Your task to perform on an android device: turn on wifi Image 0: 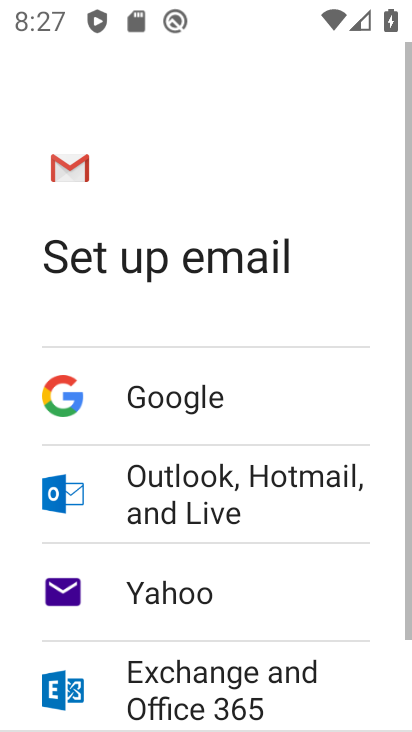
Step 0: press home button
Your task to perform on an android device: turn on wifi Image 1: 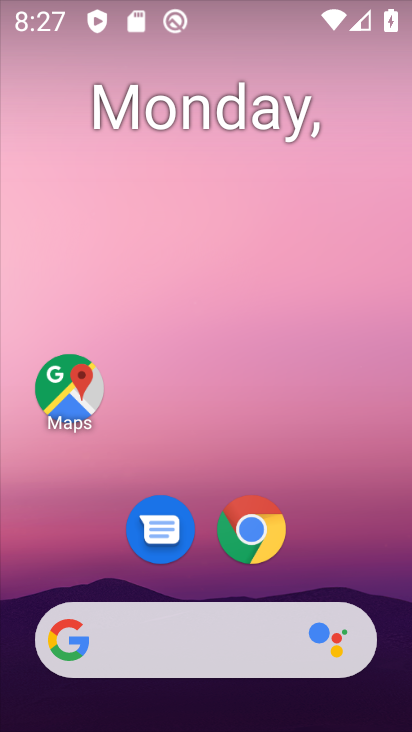
Step 1: drag from (42, 627) to (253, 113)
Your task to perform on an android device: turn on wifi Image 2: 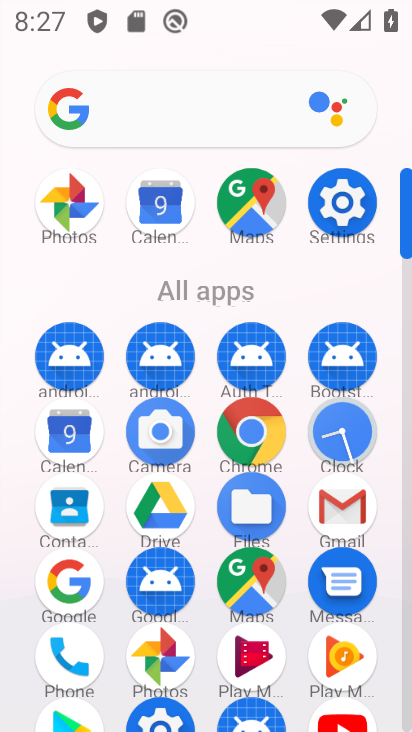
Step 2: click (354, 214)
Your task to perform on an android device: turn on wifi Image 3: 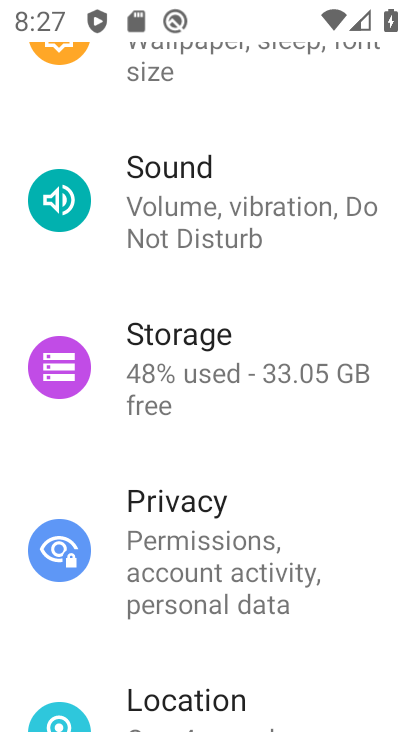
Step 3: drag from (229, 174) to (99, 559)
Your task to perform on an android device: turn on wifi Image 4: 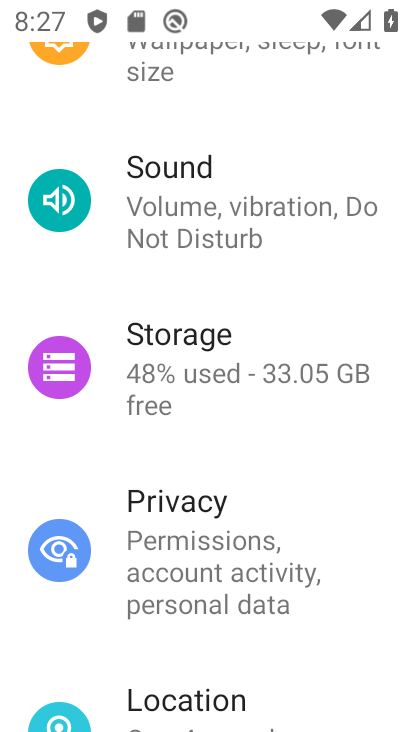
Step 4: drag from (170, 121) to (104, 625)
Your task to perform on an android device: turn on wifi Image 5: 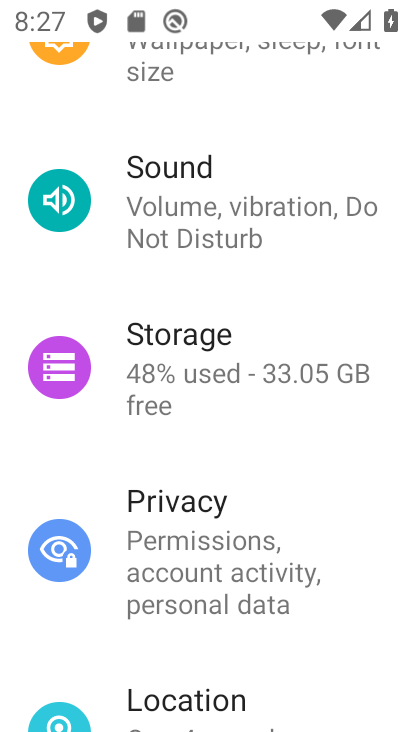
Step 5: drag from (229, 72) to (87, 567)
Your task to perform on an android device: turn on wifi Image 6: 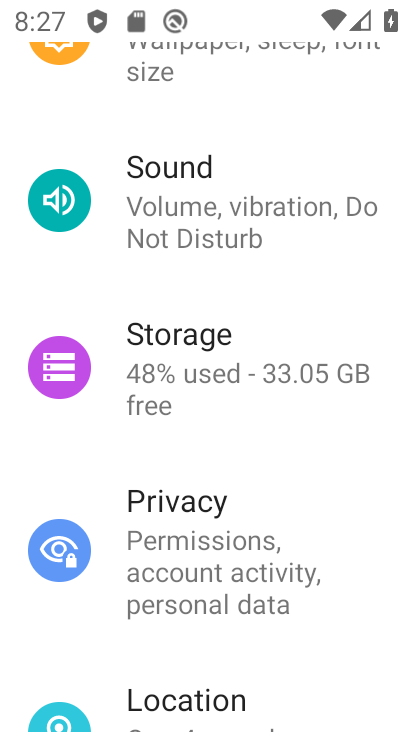
Step 6: drag from (174, 123) to (127, 426)
Your task to perform on an android device: turn on wifi Image 7: 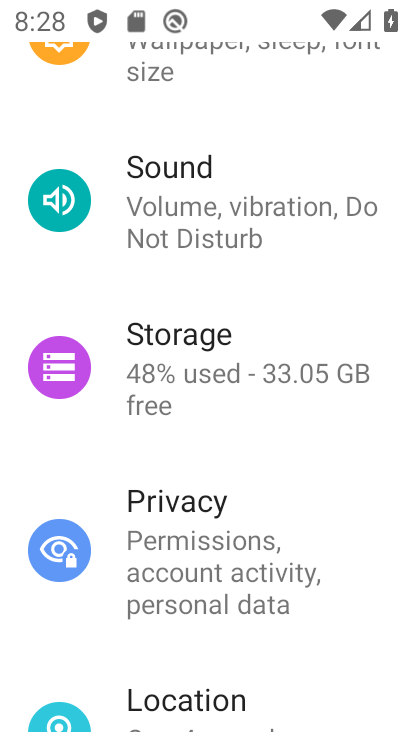
Step 7: drag from (198, 140) to (138, 622)
Your task to perform on an android device: turn on wifi Image 8: 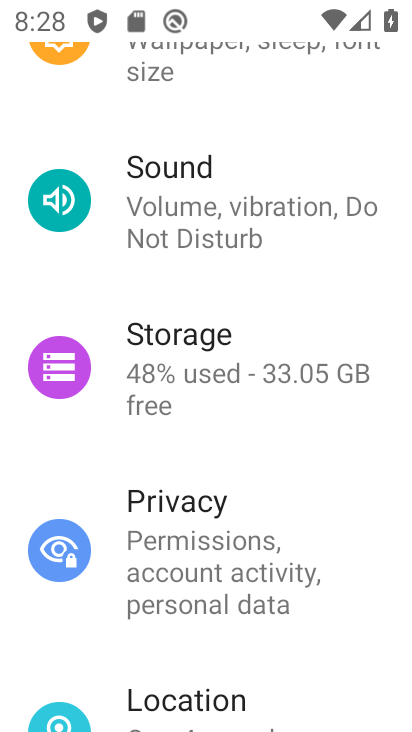
Step 8: drag from (282, 157) to (208, 551)
Your task to perform on an android device: turn on wifi Image 9: 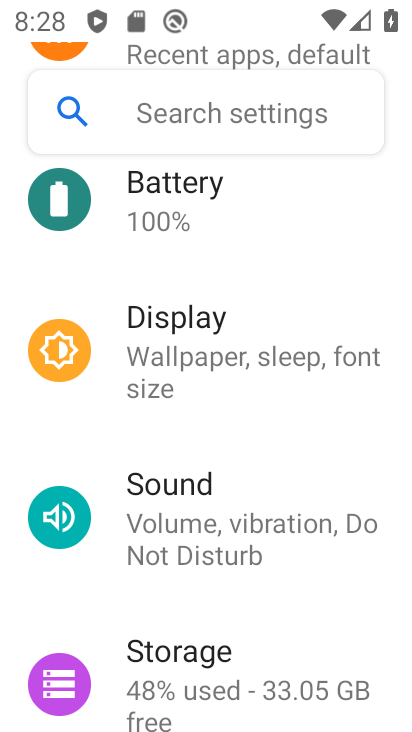
Step 9: drag from (198, 240) to (171, 586)
Your task to perform on an android device: turn on wifi Image 10: 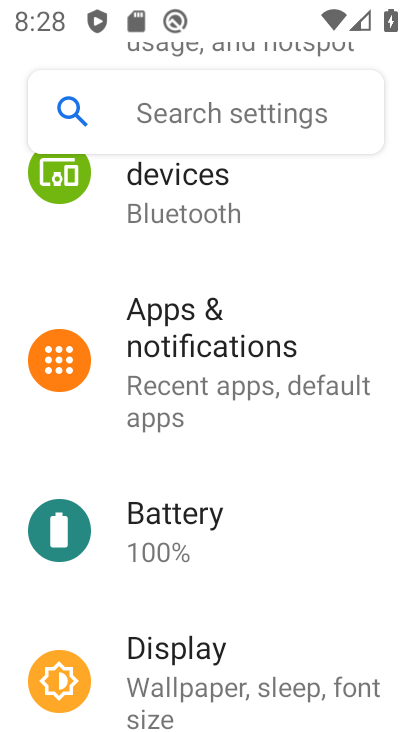
Step 10: drag from (222, 269) to (164, 615)
Your task to perform on an android device: turn on wifi Image 11: 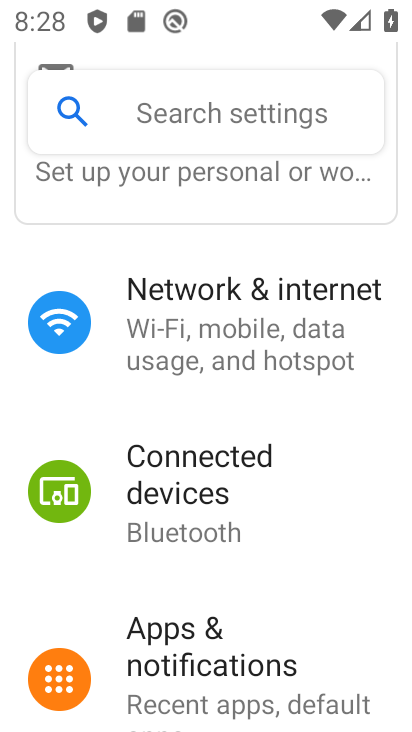
Step 11: click (203, 331)
Your task to perform on an android device: turn on wifi Image 12: 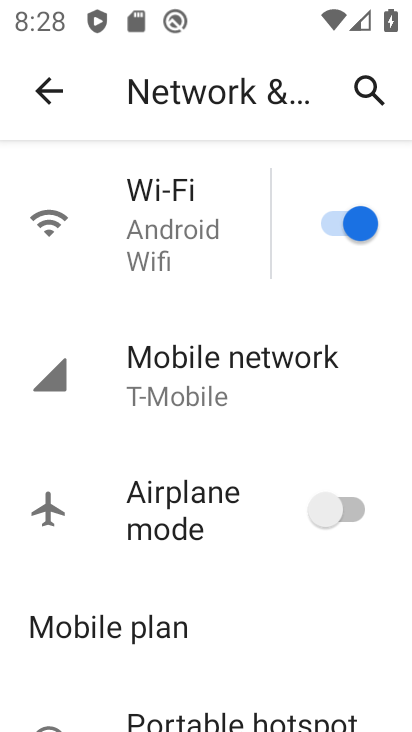
Step 12: click (160, 204)
Your task to perform on an android device: turn on wifi Image 13: 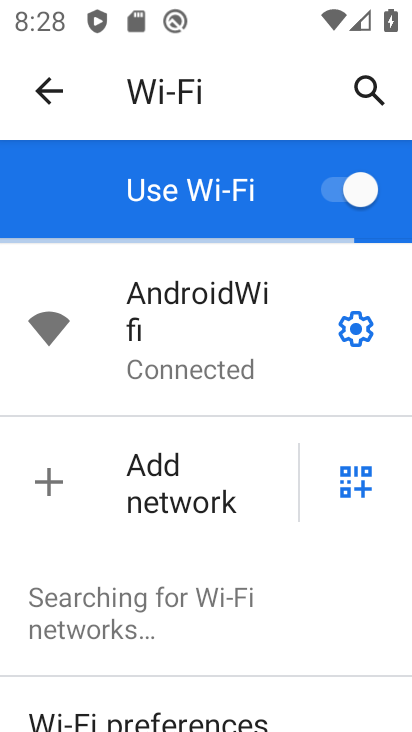
Step 13: task complete